Your task to perform on an android device: turn off javascript in the chrome app Image 0: 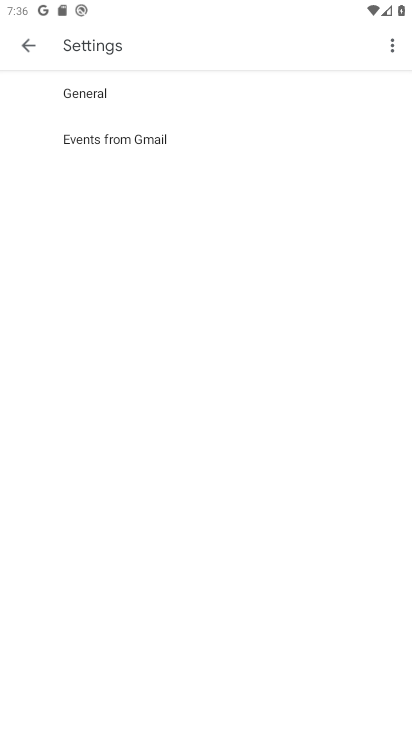
Step 0: press home button
Your task to perform on an android device: turn off javascript in the chrome app Image 1: 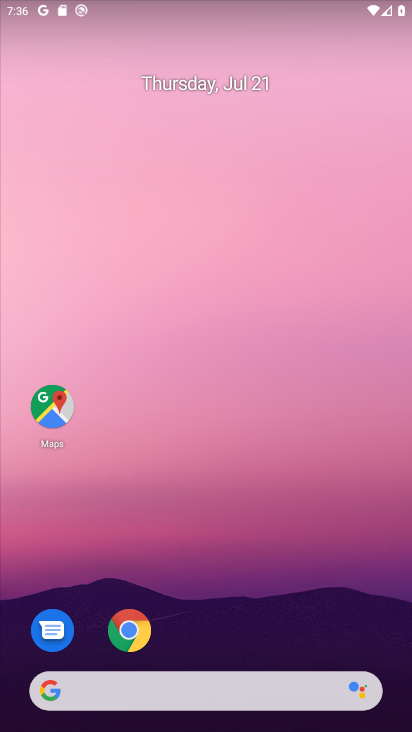
Step 1: click (138, 621)
Your task to perform on an android device: turn off javascript in the chrome app Image 2: 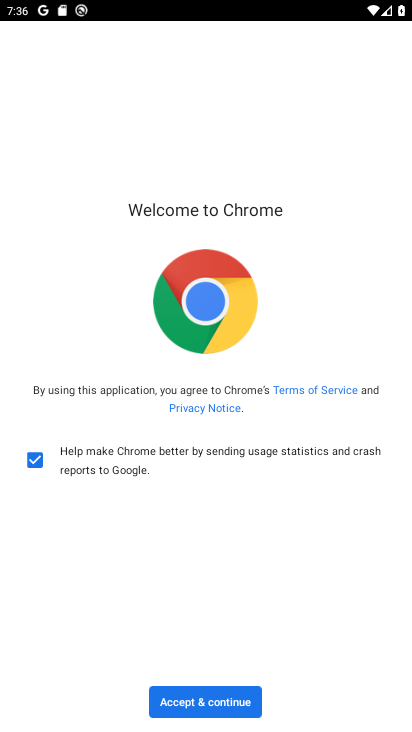
Step 2: click (229, 701)
Your task to perform on an android device: turn off javascript in the chrome app Image 3: 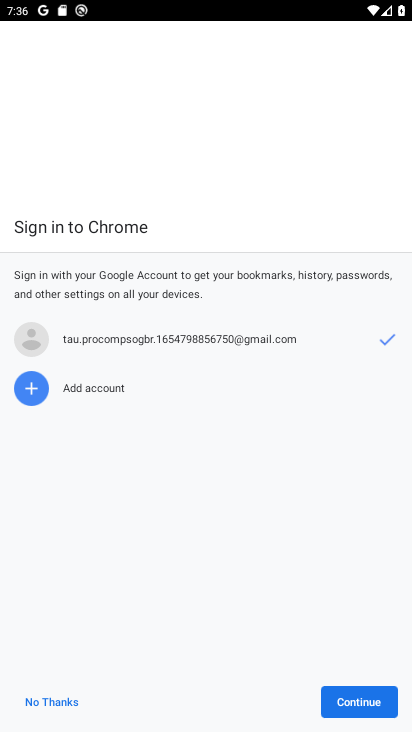
Step 3: click (339, 696)
Your task to perform on an android device: turn off javascript in the chrome app Image 4: 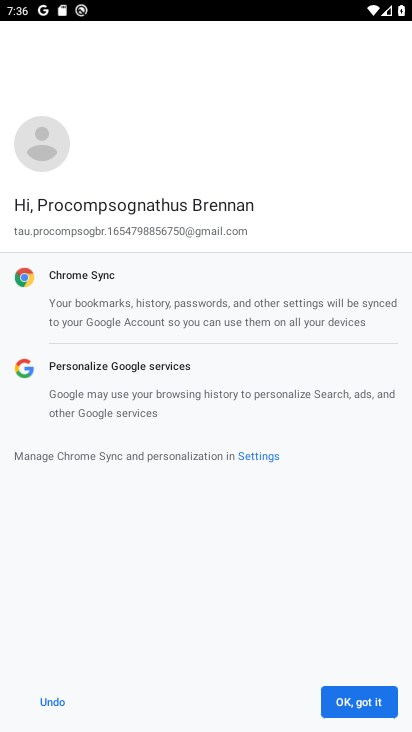
Step 4: click (341, 700)
Your task to perform on an android device: turn off javascript in the chrome app Image 5: 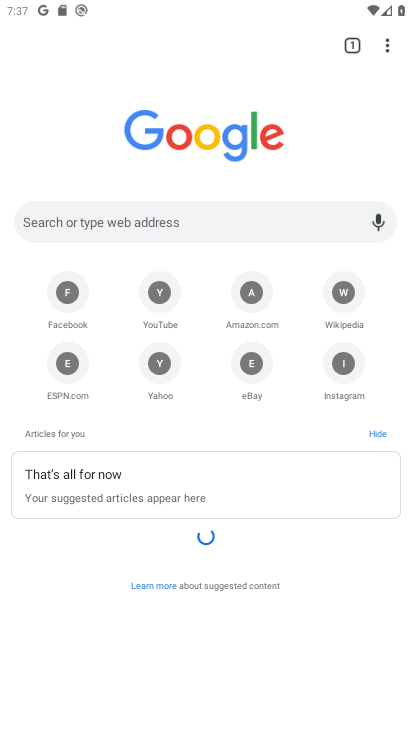
Step 5: drag from (388, 44) to (227, 386)
Your task to perform on an android device: turn off javascript in the chrome app Image 6: 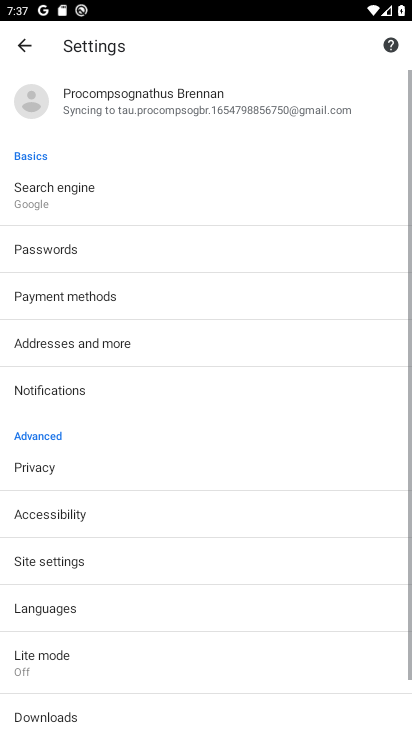
Step 6: click (41, 551)
Your task to perform on an android device: turn off javascript in the chrome app Image 7: 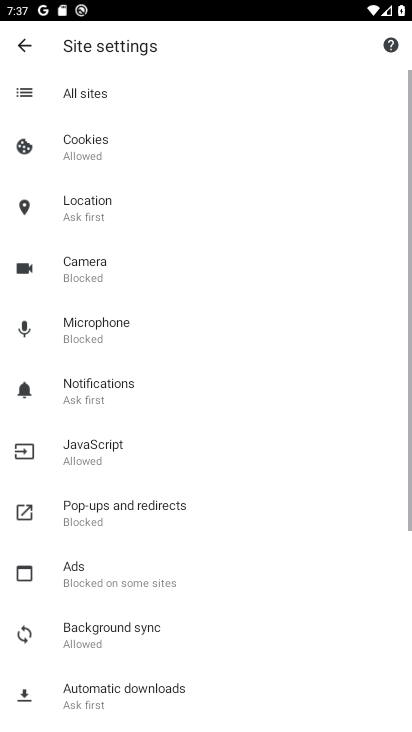
Step 7: click (52, 444)
Your task to perform on an android device: turn off javascript in the chrome app Image 8: 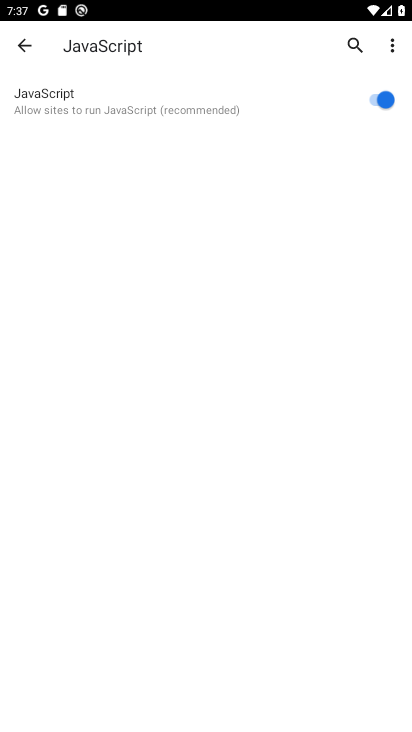
Step 8: click (369, 106)
Your task to perform on an android device: turn off javascript in the chrome app Image 9: 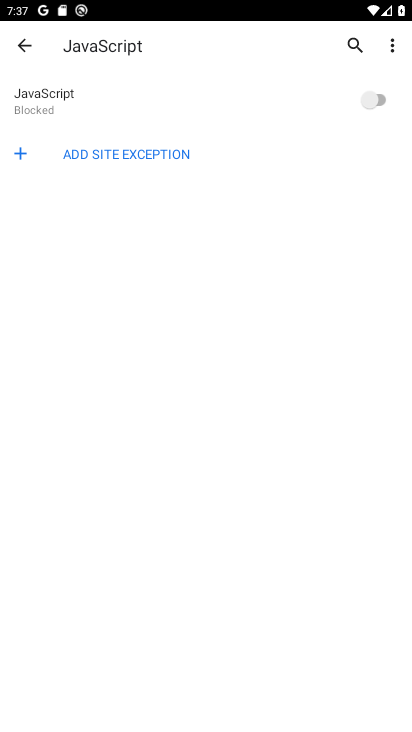
Step 9: task complete